Your task to perform on an android device: When is my next appointment? Image 0: 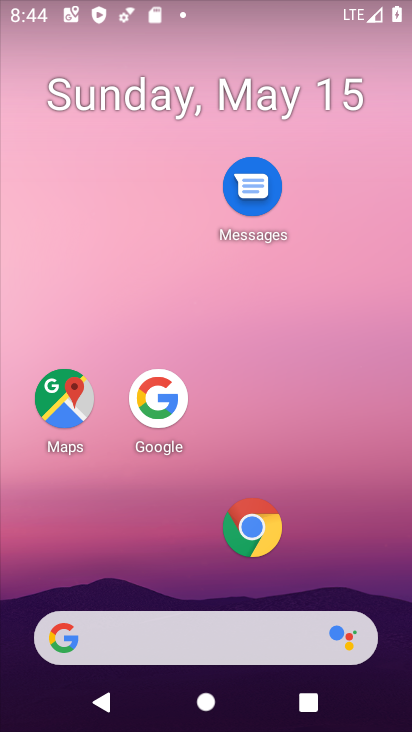
Step 0: press home button
Your task to perform on an android device: When is my next appointment? Image 1: 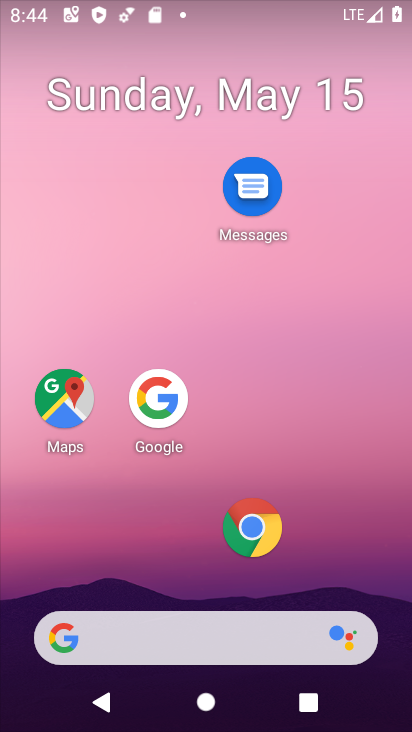
Step 1: drag from (174, 585) to (333, 93)
Your task to perform on an android device: When is my next appointment? Image 2: 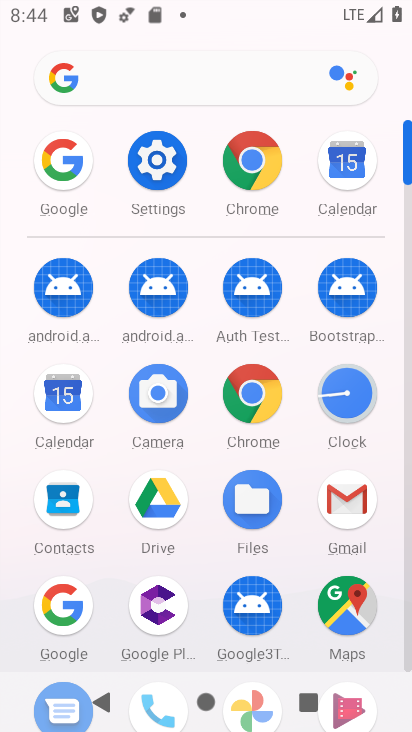
Step 2: click (362, 165)
Your task to perform on an android device: When is my next appointment? Image 3: 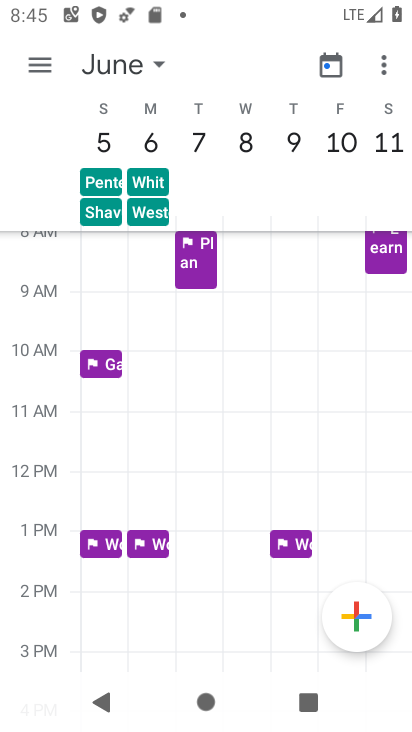
Step 3: click (106, 65)
Your task to perform on an android device: When is my next appointment? Image 4: 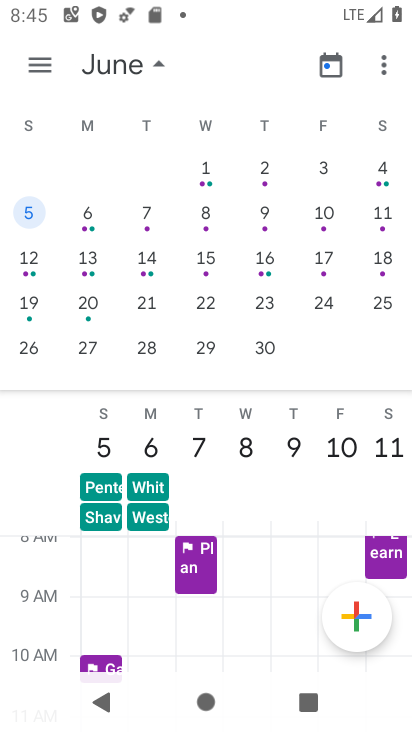
Step 4: drag from (71, 246) to (411, 225)
Your task to perform on an android device: When is my next appointment? Image 5: 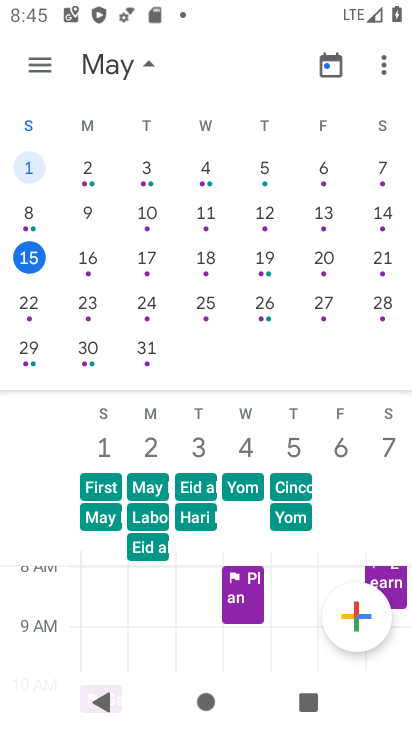
Step 5: click (30, 252)
Your task to perform on an android device: When is my next appointment? Image 6: 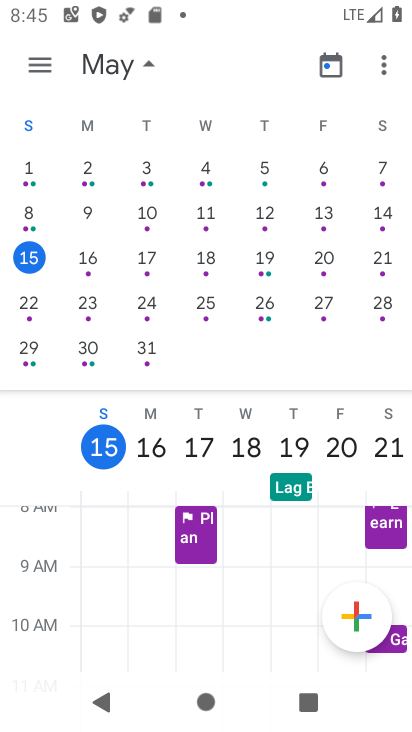
Step 6: click (34, 64)
Your task to perform on an android device: When is my next appointment? Image 7: 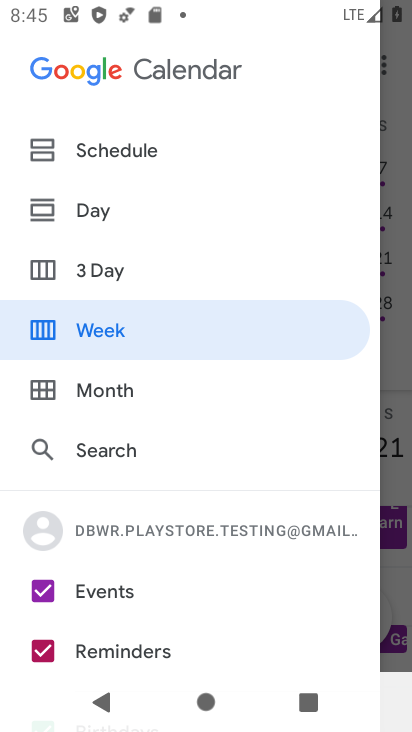
Step 7: click (98, 150)
Your task to perform on an android device: When is my next appointment? Image 8: 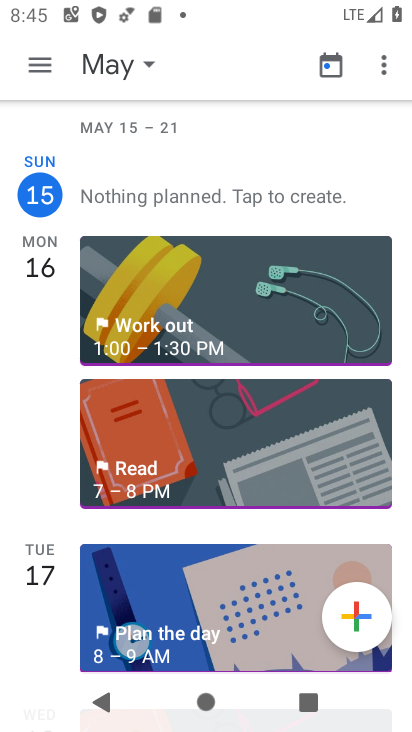
Step 8: task complete